Your task to perform on an android device: open device folders in google photos Image 0: 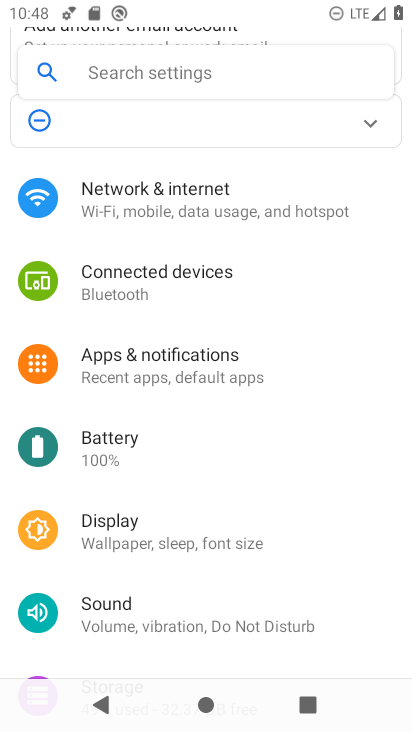
Step 0: press home button
Your task to perform on an android device: open device folders in google photos Image 1: 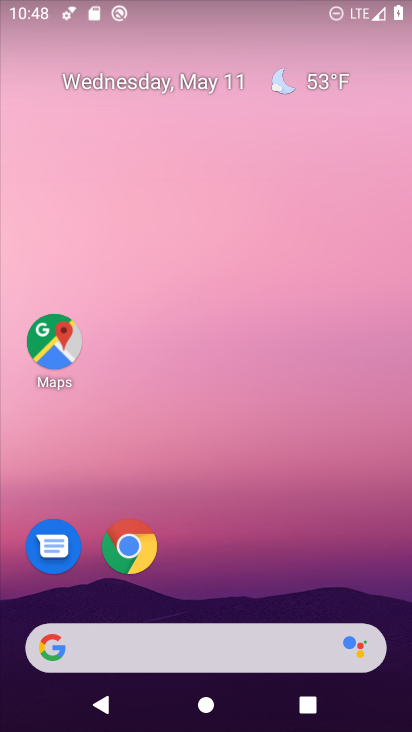
Step 1: drag from (372, 598) to (301, 42)
Your task to perform on an android device: open device folders in google photos Image 2: 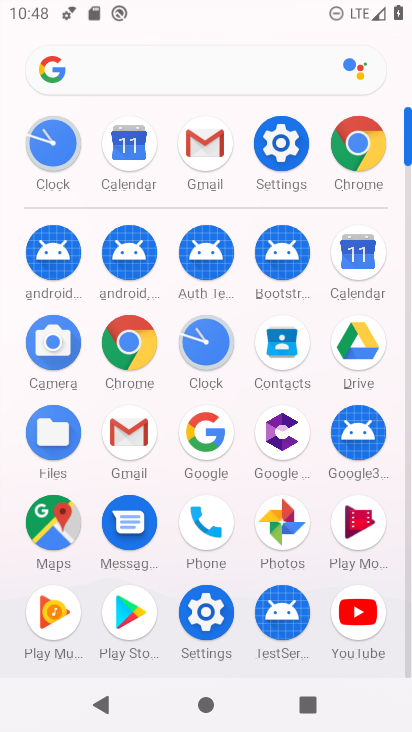
Step 2: click (279, 532)
Your task to perform on an android device: open device folders in google photos Image 3: 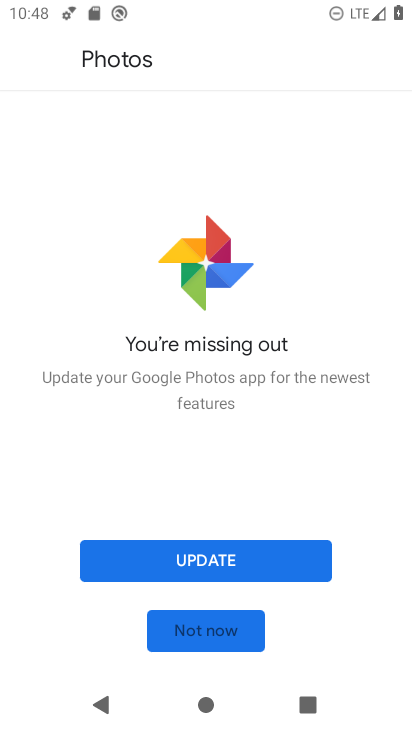
Step 3: click (200, 577)
Your task to perform on an android device: open device folders in google photos Image 4: 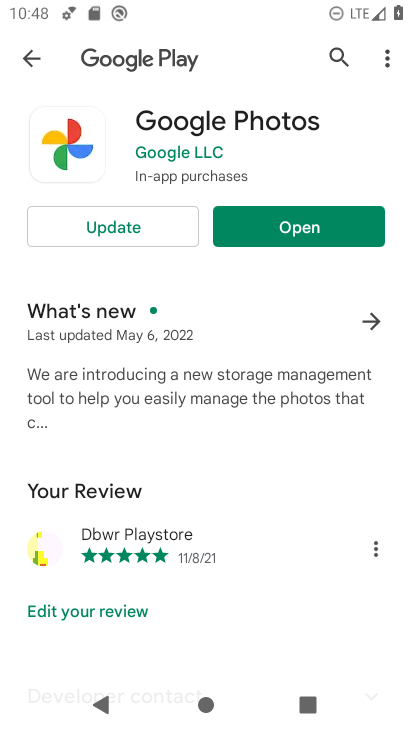
Step 4: click (121, 228)
Your task to perform on an android device: open device folders in google photos Image 5: 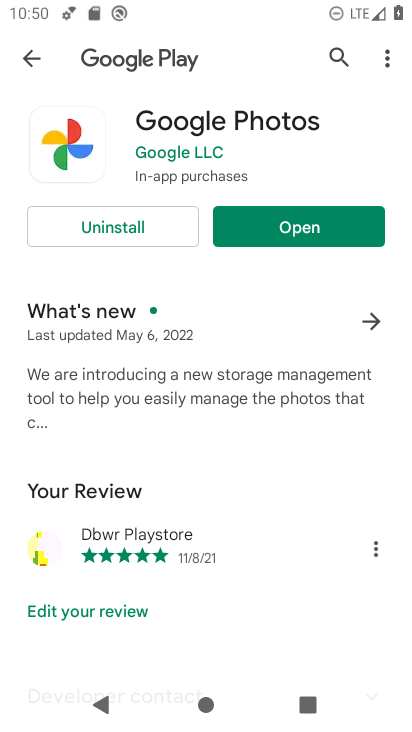
Step 5: click (317, 213)
Your task to perform on an android device: open device folders in google photos Image 6: 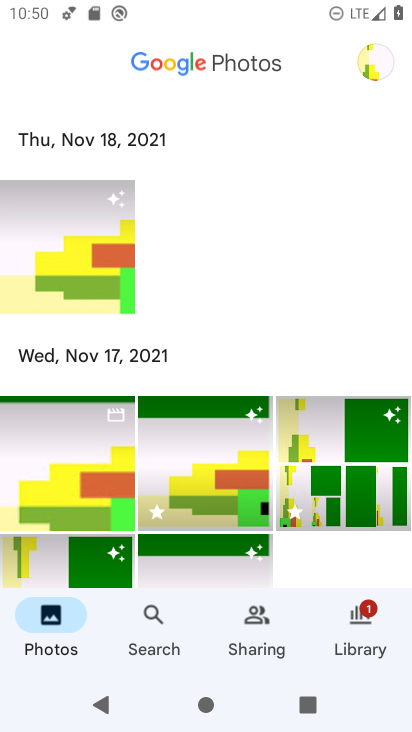
Step 6: task complete